Your task to perform on an android device: turn off airplane mode Image 0: 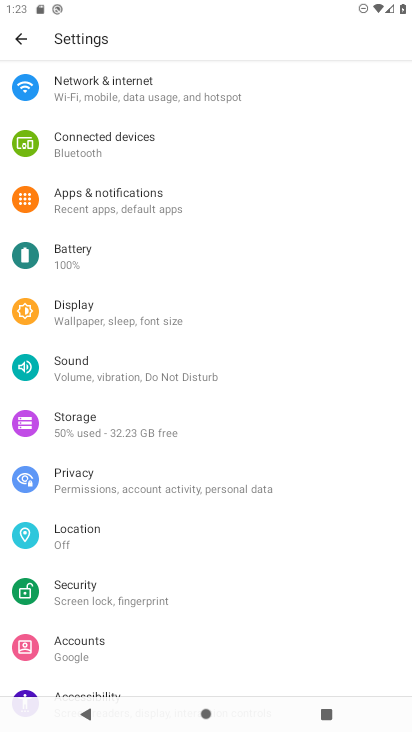
Step 0: press home button
Your task to perform on an android device: turn off airplane mode Image 1: 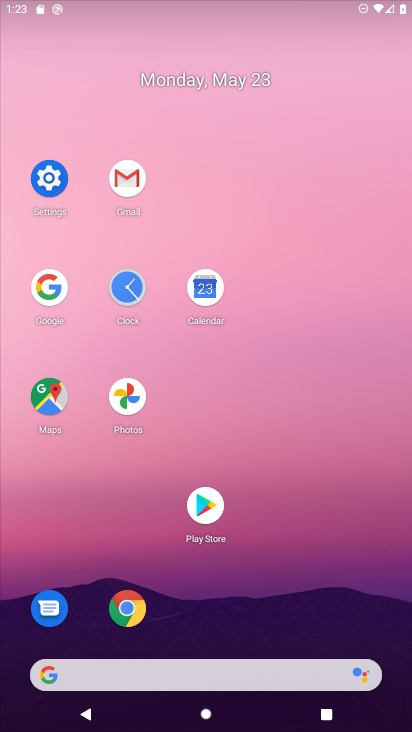
Step 1: click (58, 176)
Your task to perform on an android device: turn off airplane mode Image 2: 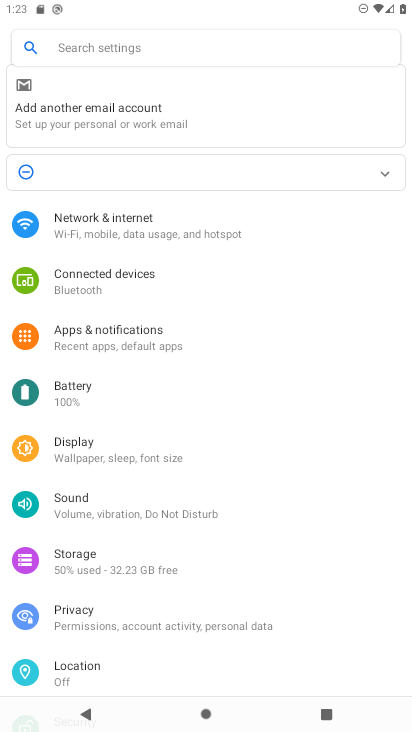
Step 2: click (187, 245)
Your task to perform on an android device: turn off airplane mode Image 3: 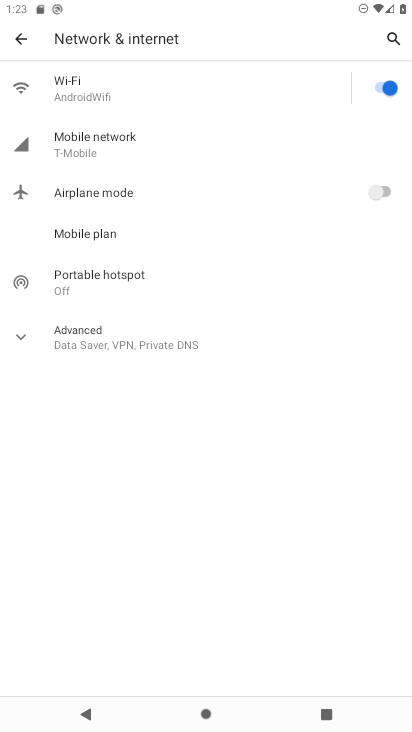
Step 3: task complete